Your task to perform on an android device: Show me recent news Image 0: 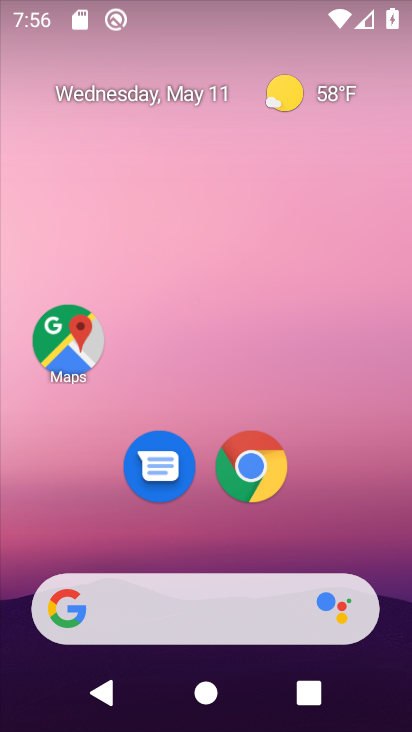
Step 0: drag from (163, 546) to (184, 48)
Your task to perform on an android device: Show me recent news Image 1: 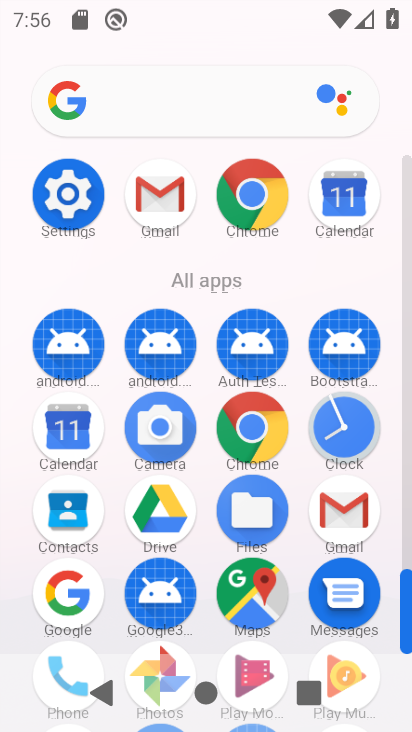
Step 1: click (158, 106)
Your task to perform on an android device: Show me recent news Image 2: 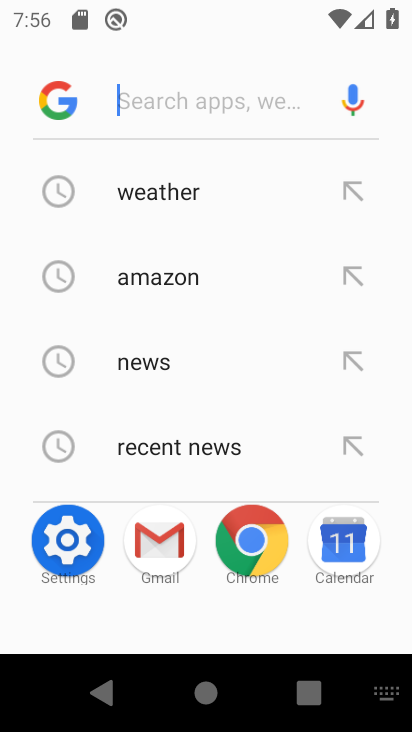
Step 2: type "recent news"
Your task to perform on an android device: Show me recent news Image 3: 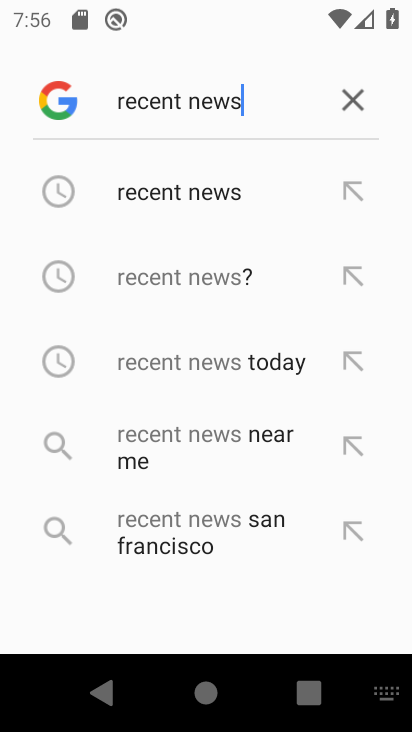
Step 3: click (149, 191)
Your task to perform on an android device: Show me recent news Image 4: 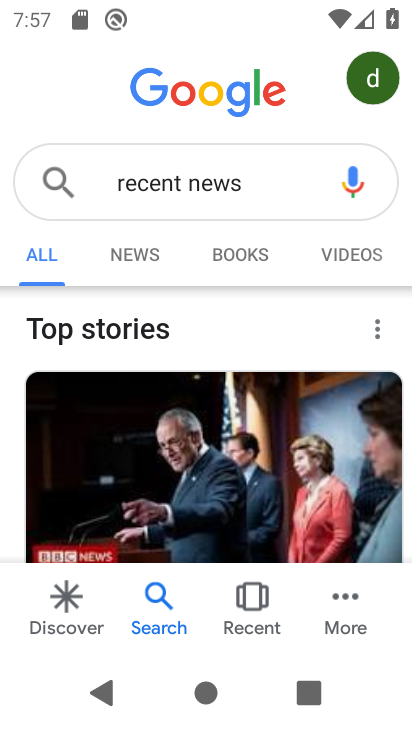
Step 4: click (114, 251)
Your task to perform on an android device: Show me recent news Image 5: 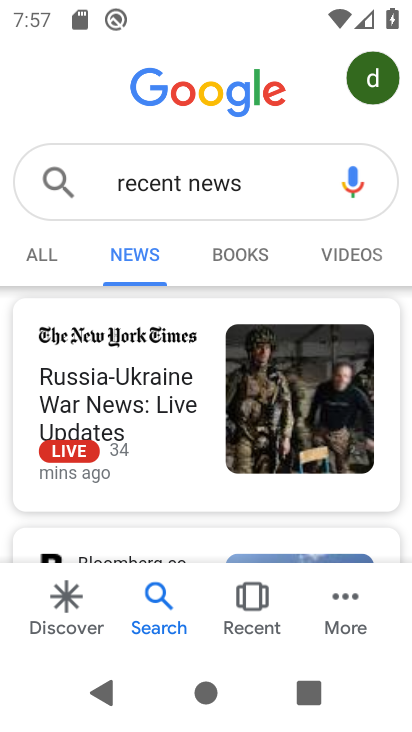
Step 5: task complete